Your task to perform on an android device: View the shopping cart on walmart. Search for razer blade on walmart, select the first entry, and add it to the cart. Image 0: 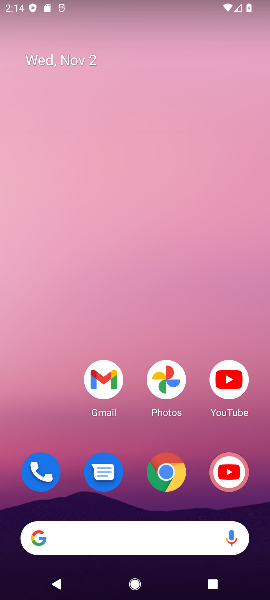
Step 0: click (162, 477)
Your task to perform on an android device: View the shopping cart on walmart. Search for razer blade on walmart, select the first entry, and add it to the cart. Image 1: 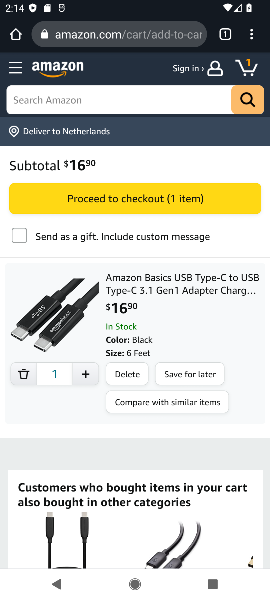
Step 1: click (105, 34)
Your task to perform on an android device: View the shopping cart on walmart. Search for razer blade on walmart, select the first entry, and add it to the cart. Image 2: 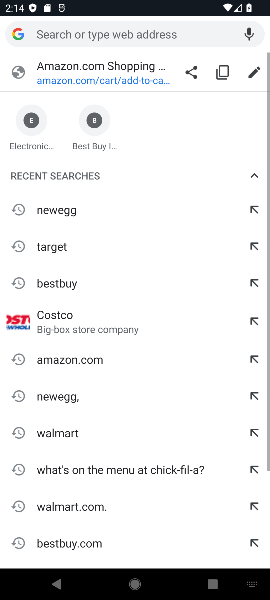
Step 2: type "walmart"
Your task to perform on an android device: View the shopping cart on walmart. Search for razer blade on walmart, select the first entry, and add it to the cart. Image 3: 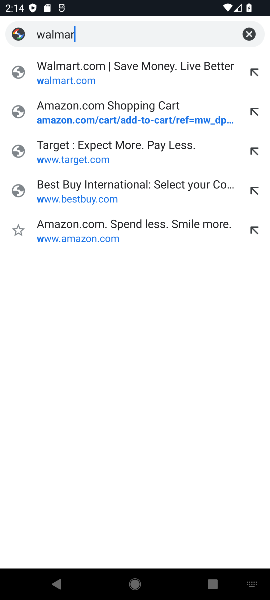
Step 3: type ""
Your task to perform on an android device: View the shopping cart on walmart. Search for razer blade on walmart, select the first entry, and add it to the cart. Image 4: 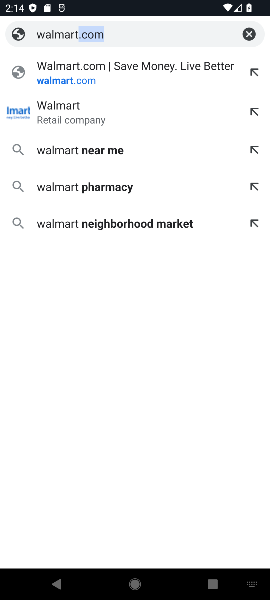
Step 4: press enter
Your task to perform on an android device: View the shopping cart on walmart. Search for razer blade on walmart, select the first entry, and add it to the cart. Image 5: 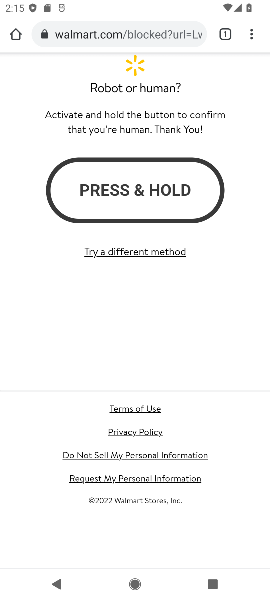
Step 5: click (141, 192)
Your task to perform on an android device: View the shopping cart on walmart. Search for razer blade on walmart, select the first entry, and add it to the cart. Image 6: 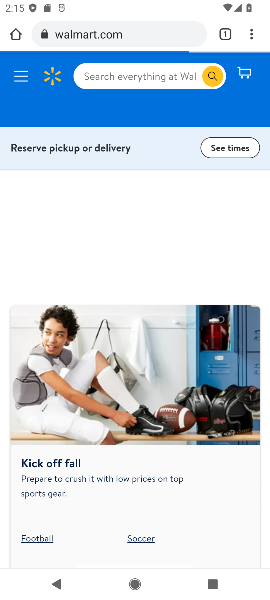
Step 6: click (120, 66)
Your task to perform on an android device: View the shopping cart on walmart. Search for razer blade on walmart, select the first entry, and add it to the cart. Image 7: 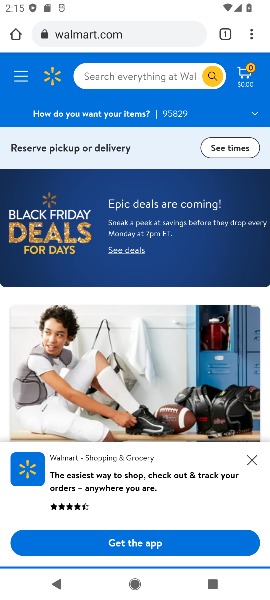
Step 7: click (248, 462)
Your task to perform on an android device: View the shopping cart on walmart. Search for razer blade on walmart, select the first entry, and add it to the cart. Image 8: 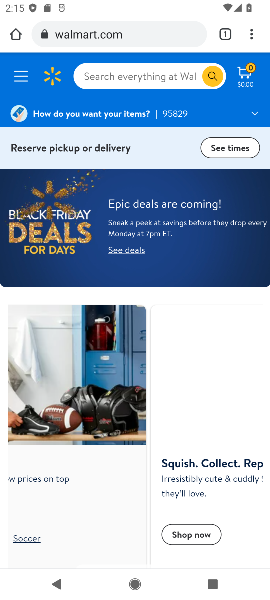
Step 8: click (118, 82)
Your task to perform on an android device: View the shopping cart on walmart. Search for razer blade on walmart, select the first entry, and add it to the cart. Image 9: 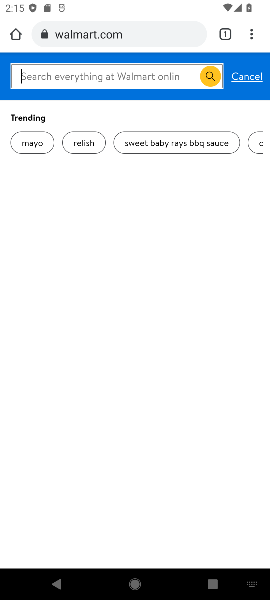
Step 9: type "razer blade"
Your task to perform on an android device: View the shopping cart on walmart. Search for razer blade on walmart, select the first entry, and add it to the cart. Image 10: 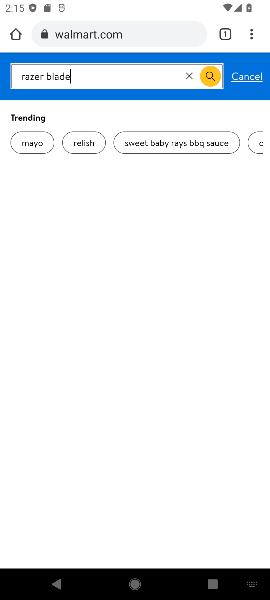
Step 10: type ""
Your task to perform on an android device: View the shopping cart on walmart. Search for razer blade on walmart, select the first entry, and add it to the cart. Image 11: 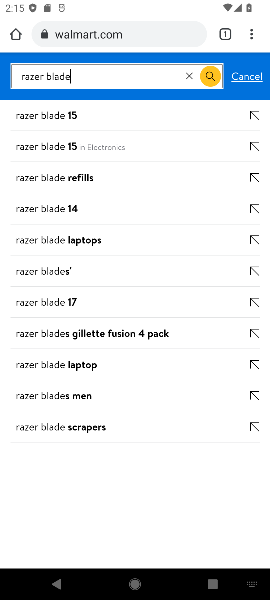
Step 11: click (64, 149)
Your task to perform on an android device: View the shopping cart on walmart. Search for razer blade on walmart, select the first entry, and add it to the cart. Image 12: 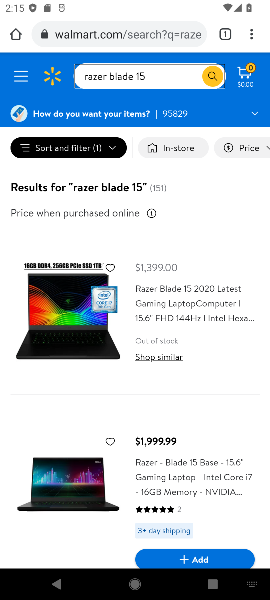
Step 12: click (160, 288)
Your task to perform on an android device: View the shopping cart on walmart. Search for razer blade on walmart, select the first entry, and add it to the cart. Image 13: 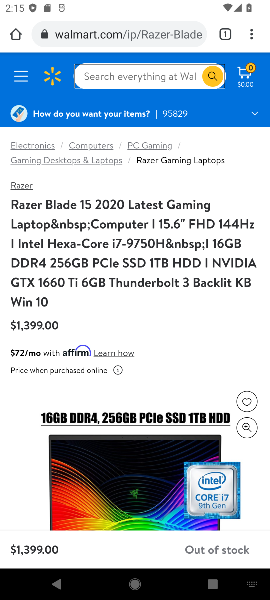
Step 13: drag from (189, 408) to (172, 175)
Your task to perform on an android device: View the shopping cart on walmart. Search for razer blade on walmart, select the first entry, and add it to the cart. Image 14: 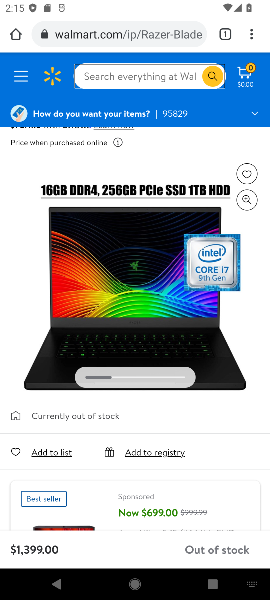
Step 14: drag from (170, 398) to (185, 198)
Your task to perform on an android device: View the shopping cart on walmart. Search for razer blade on walmart, select the first entry, and add it to the cart. Image 15: 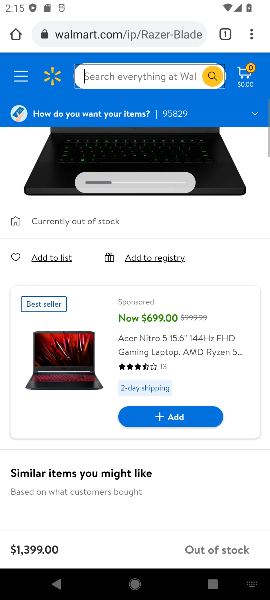
Step 15: drag from (199, 438) to (202, 314)
Your task to perform on an android device: View the shopping cart on walmart. Search for razer blade on walmart, select the first entry, and add it to the cart. Image 16: 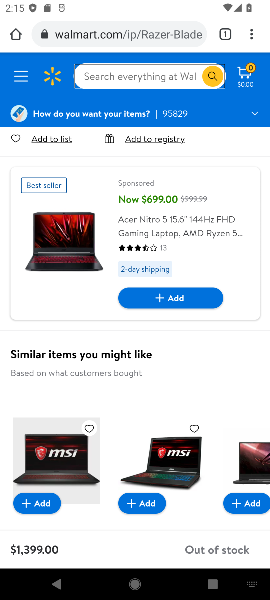
Step 16: click (160, 298)
Your task to perform on an android device: View the shopping cart on walmart. Search for razer blade on walmart, select the first entry, and add it to the cart. Image 17: 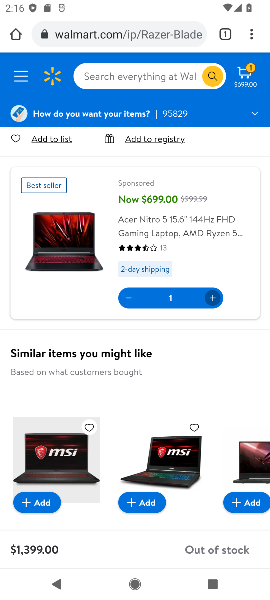
Step 17: click (255, 77)
Your task to perform on an android device: View the shopping cart on walmart. Search for razer blade on walmart, select the first entry, and add it to the cart. Image 18: 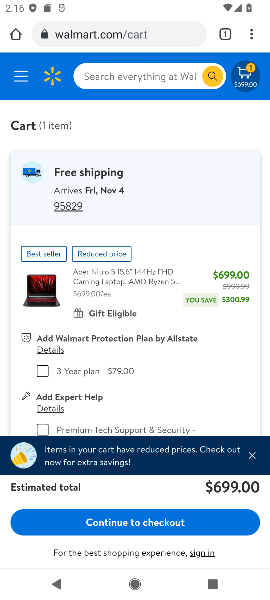
Step 18: drag from (141, 417) to (158, 276)
Your task to perform on an android device: View the shopping cart on walmart. Search for razer blade on walmart, select the first entry, and add it to the cart. Image 19: 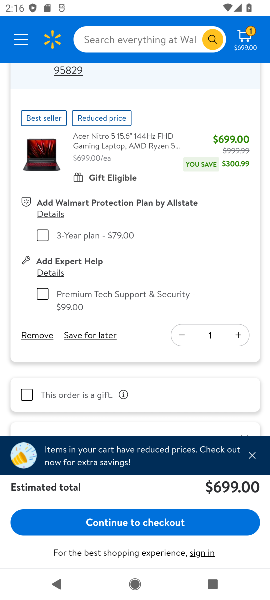
Step 19: click (164, 520)
Your task to perform on an android device: View the shopping cart on walmart. Search for razer blade on walmart, select the first entry, and add it to the cart. Image 20: 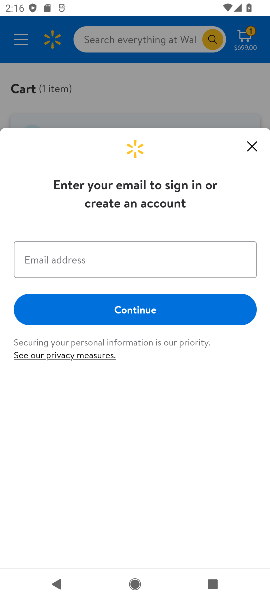
Step 20: click (259, 139)
Your task to perform on an android device: View the shopping cart on walmart. Search for razer blade on walmart, select the first entry, and add it to the cart. Image 21: 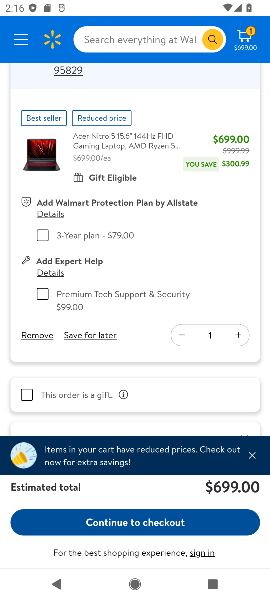
Step 21: task complete